Your task to perform on an android device: turn on data saver in the chrome app Image 0: 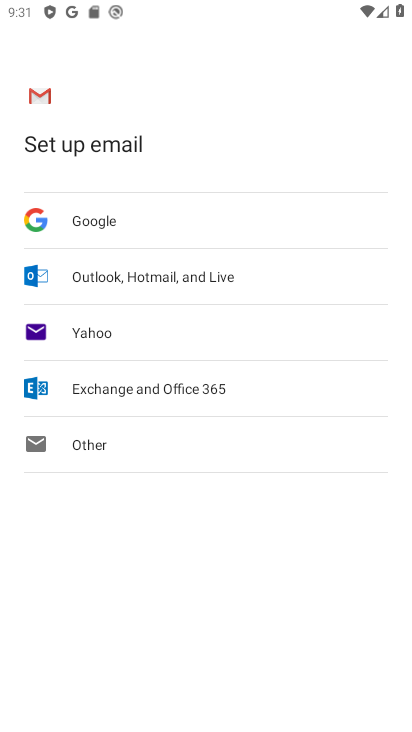
Step 0: press home button
Your task to perform on an android device: turn on data saver in the chrome app Image 1: 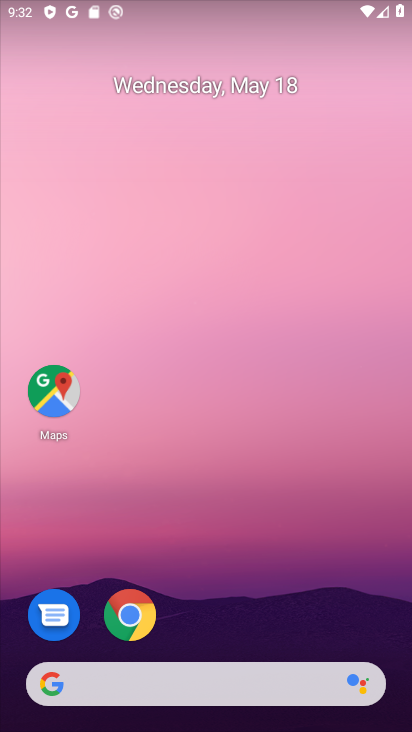
Step 1: drag from (333, 560) to (311, 38)
Your task to perform on an android device: turn on data saver in the chrome app Image 2: 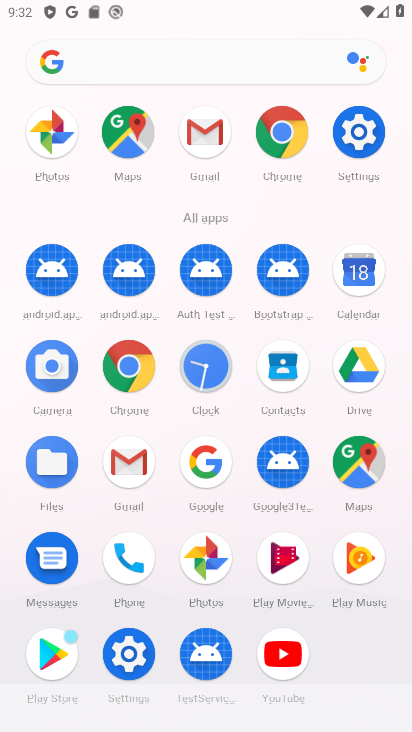
Step 2: click (285, 154)
Your task to perform on an android device: turn on data saver in the chrome app Image 3: 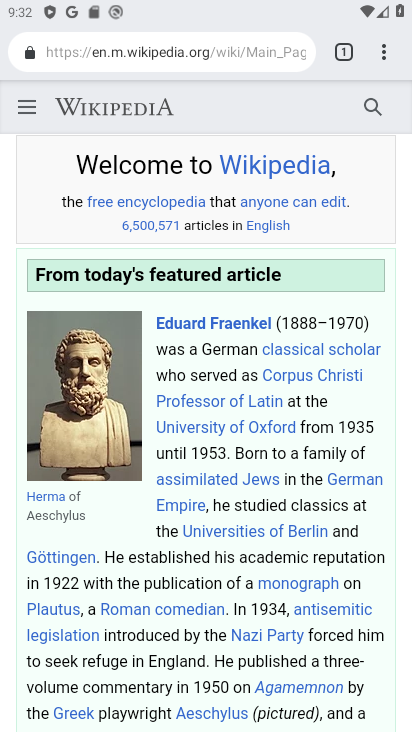
Step 3: click (390, 61)
Your task to perform on an android device: turn on data saver in the chrome app Image 4: 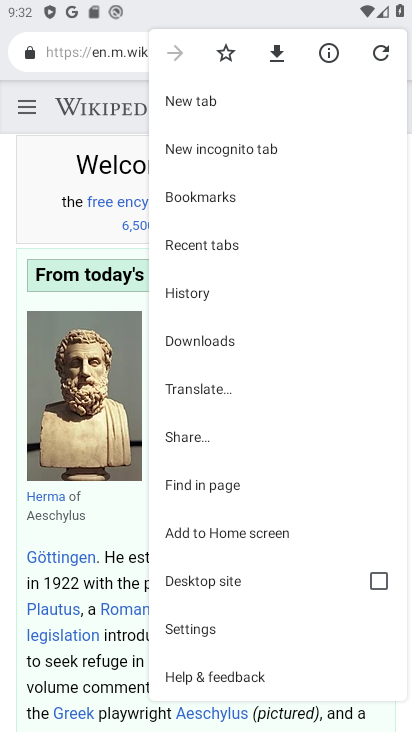
Step 4: click (237, 634)
Your task to perform on an android device: turn on data saver in the chrome app Image 5: 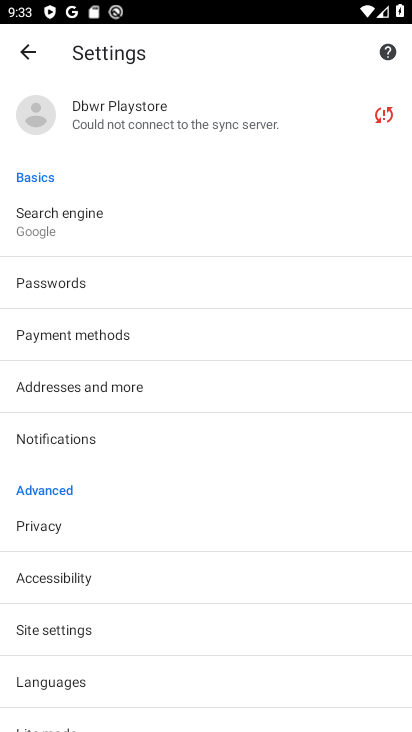
Step 5: drag from (102, 675) to (105, 432)
Your task to perform on an android device: turn on data saver in the chrome app Image 6: 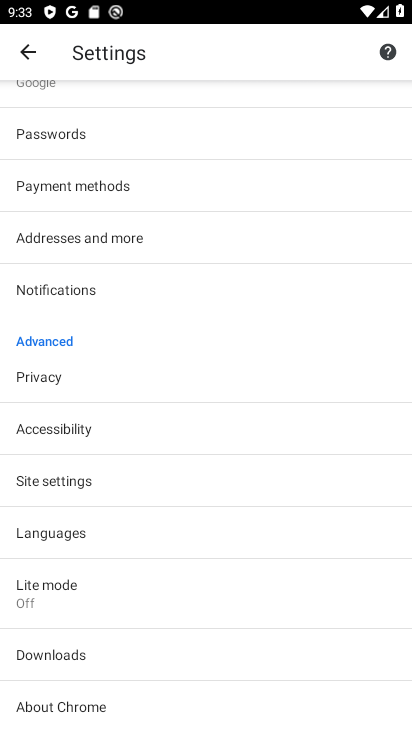
Step 6: click (103, 585)
Your task to perform on an android device: turn on data saver in the chrome app Image 7: 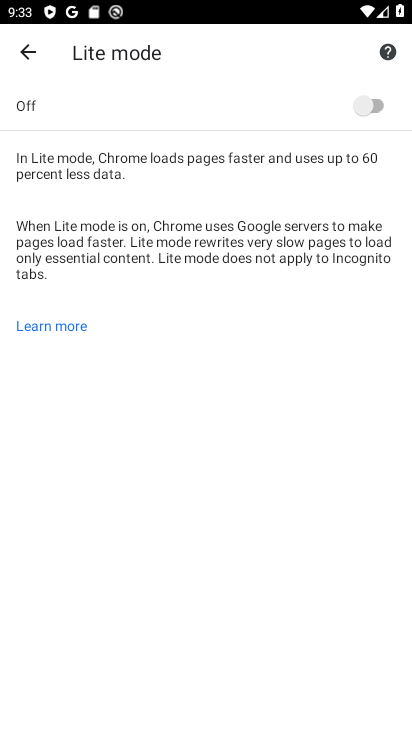
Step 7: click (380, 101)
Your task to perform on an android device: turn on data saver in the chrome app Image 8: 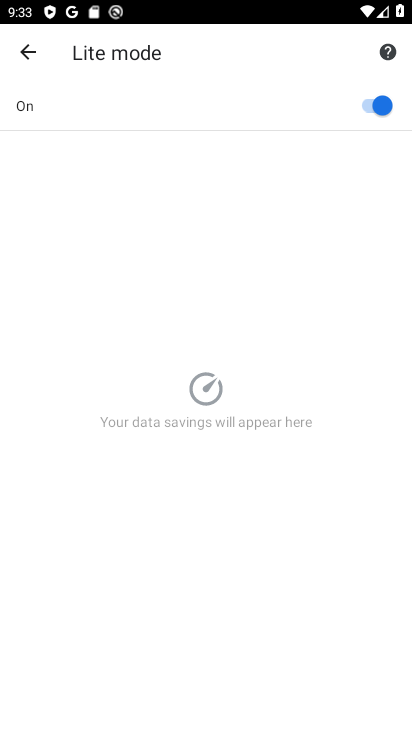
Step 8: task complete